Your task to perform on an android device: Open CNN.com Image 0: 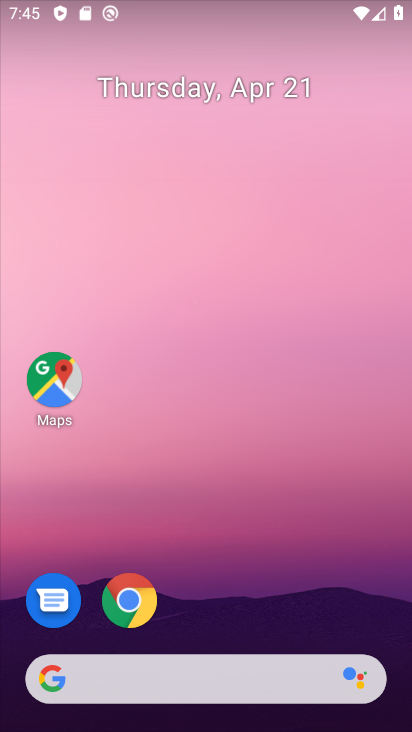
Step 0: click (125, 596)
Your task to perform on an android device: Open CNN.com Image 1: 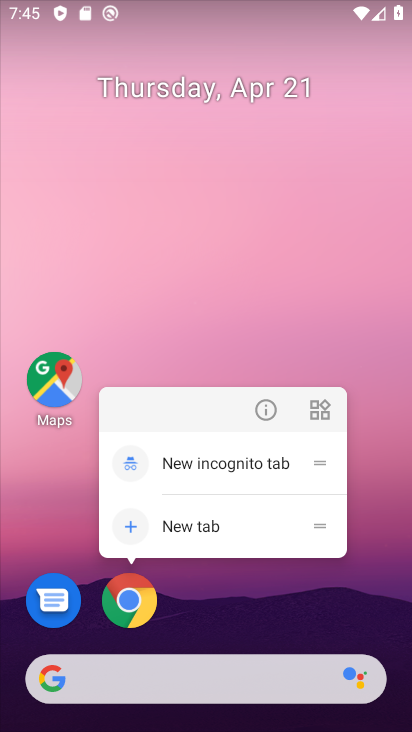
Step 1: click (262, 406)
Your task to perform on an android device: Open CNN.com Image 2: 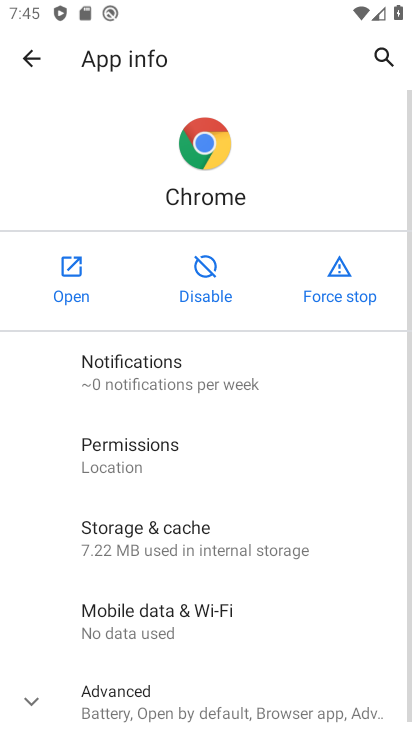
Step 2: click (74, 262)
Your task to perform on an android device: Open CNN.com Image 3: 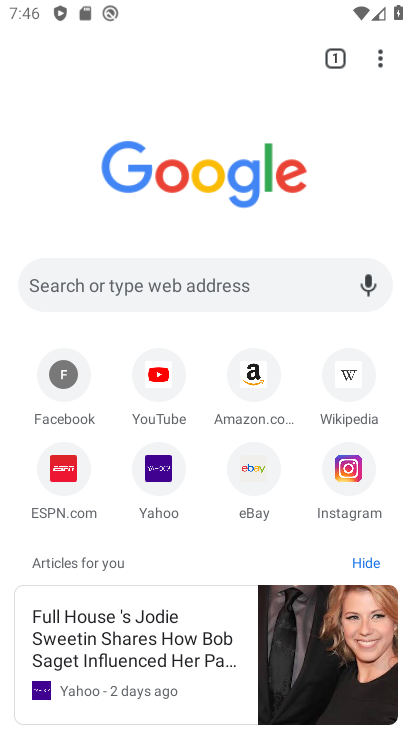
Step 3: click (173, 272)
Your task to perform on an android device: Open CNN.com Image 4: 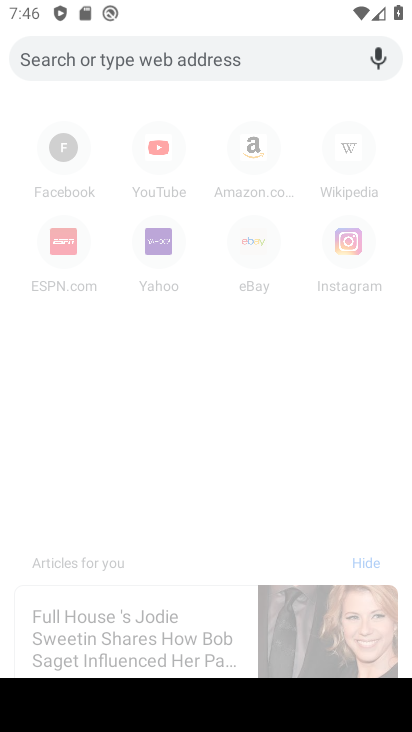
Step 4: type " CNN.com"
Your task to perform on an android device: Open CNN.com Image 5: 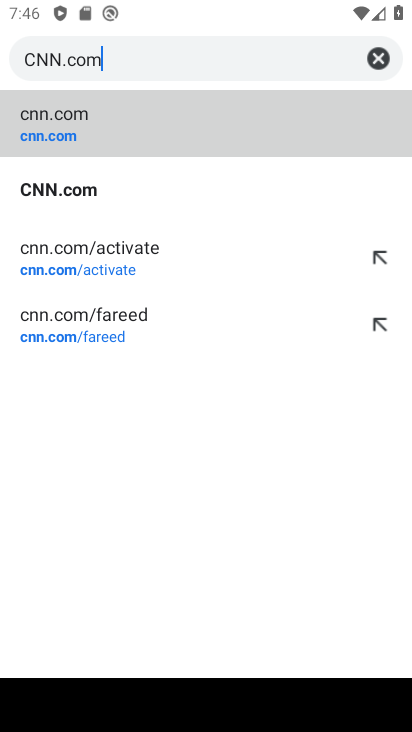
Step 5: click (42, 188)
Your task to perform on an android device: Open CNN.com Image 6: 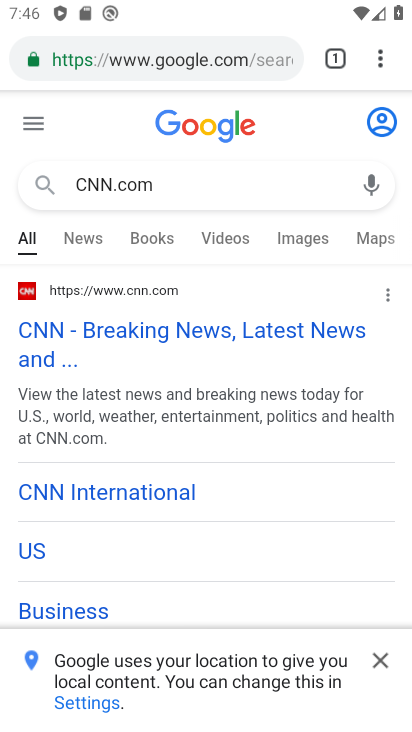
Step 6: task complete